Your task to perform on an android device: change the clock display to analog Image 0: 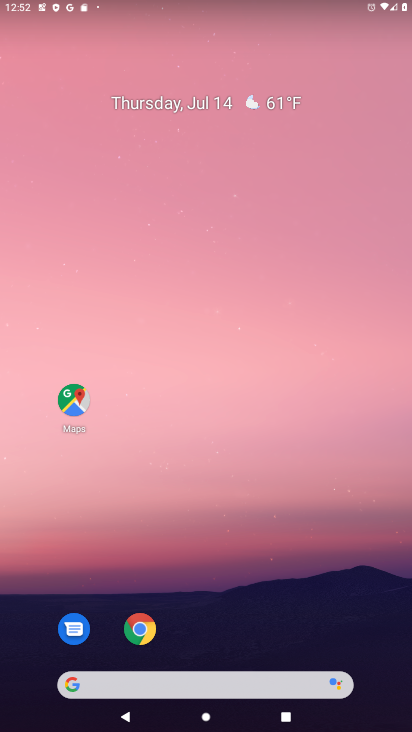
Step 0: drag from (194, 618) to (226, 119)
Your task to perform on an android device: change the clock display to analog Image 1: 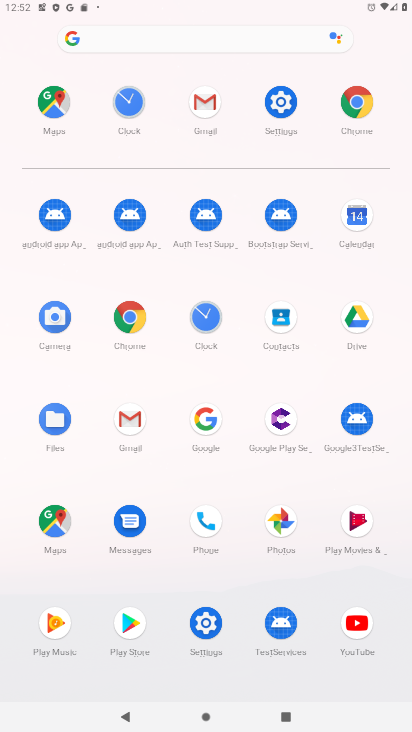
Step 1: click (116, 95)
Your task to perform on an android device: change the clock display to analog Image 2: 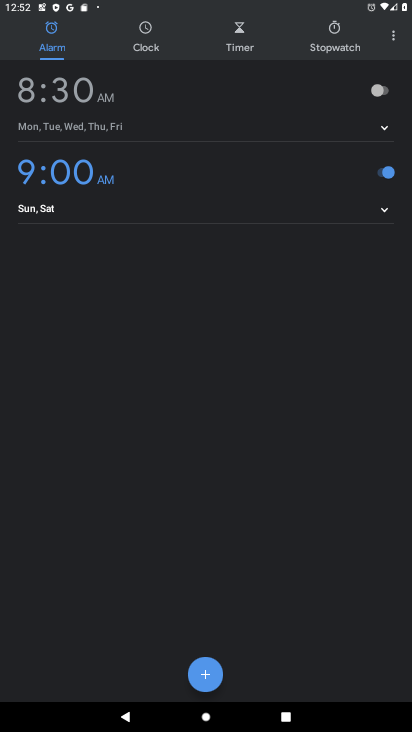
Step 2: click (398, 46)
Your task to perform on an android device: change the clock display to analog Image 3: 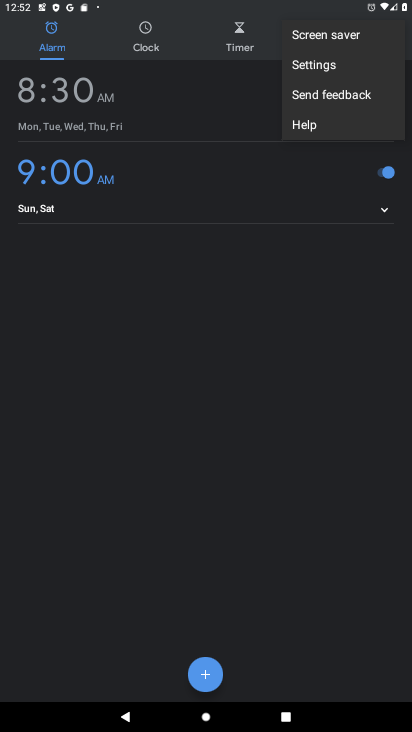
Step 3: click (335, 76)
Your task to perform on an android device: change the clock display to analog Image 4: 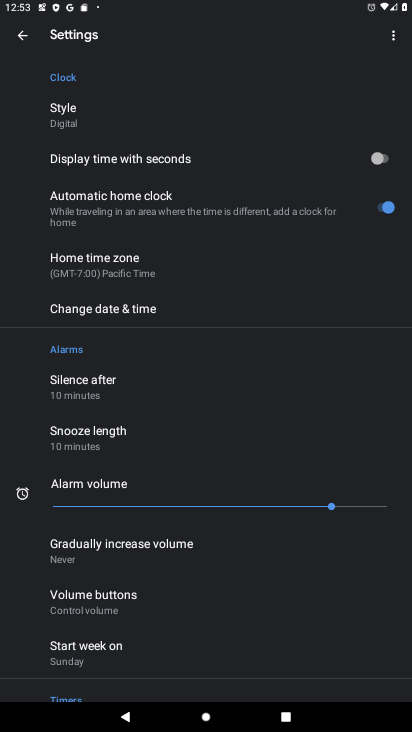
Step 4: click (94, 129)
Your task to perform on an android device: change the clock display to analog Image 5: 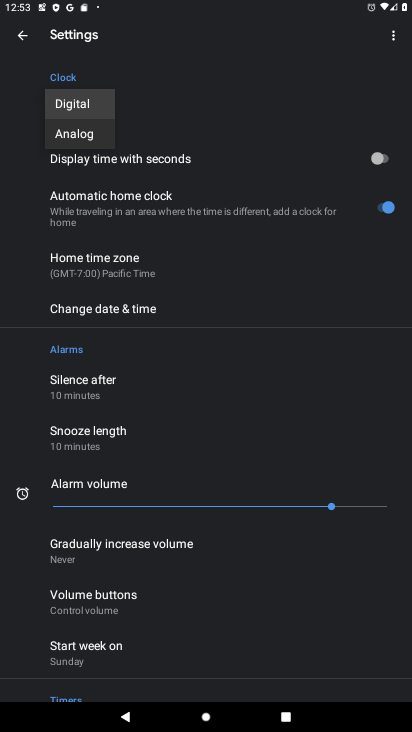
Step 5: click (94, 129)
Your task to perform on an android device: change the clock display to analog Image 6: 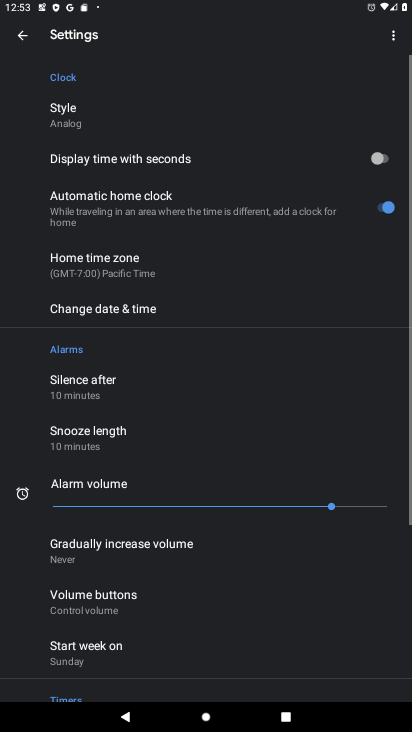
Step 6: task complete